Your task to perform on an android device: Go to Reddit.com Image 0: 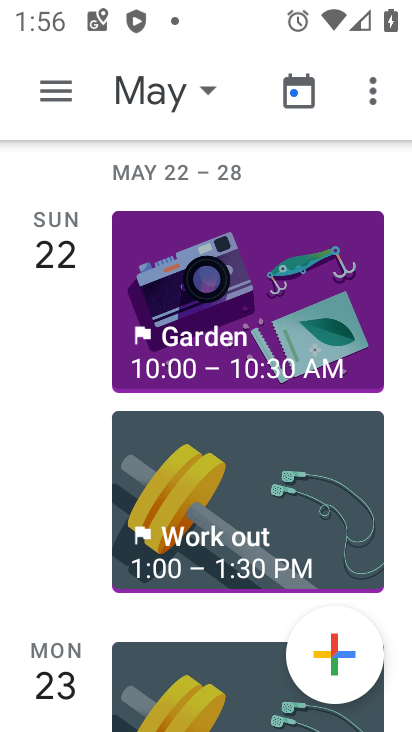
Step 0: press home button
Your task to perform on an android device: Go to Reddit.com Image 1: 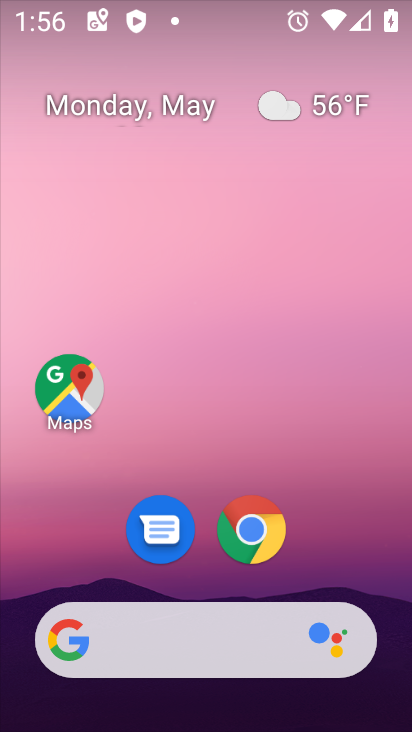
Step 1: click (247, 526)
Your task to perform on an android device: Go to Reddit.com Image 2: 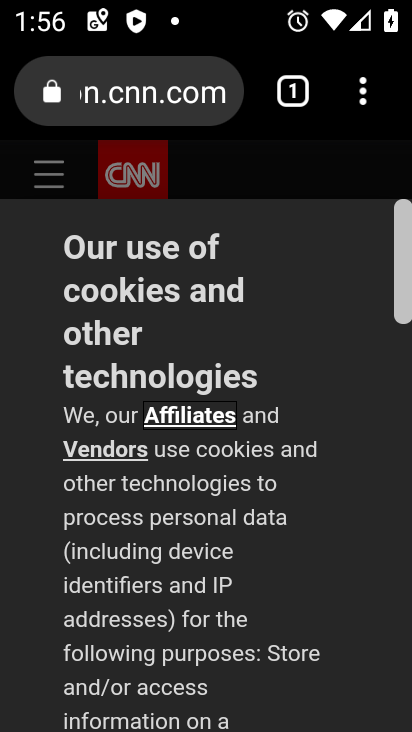
Step 2: click (118, 84)
Your task to perform on an android device: Go to Reddit.com Image 3: 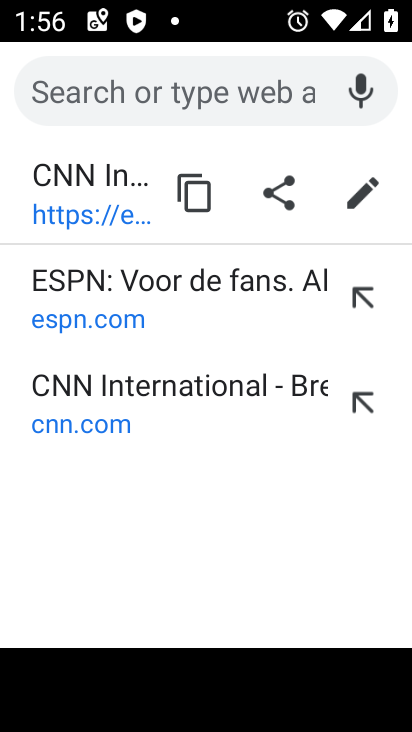
Step 3: type "Reddit.com"
Your task to perform on an android device: Go to Reddit.com Image 4: 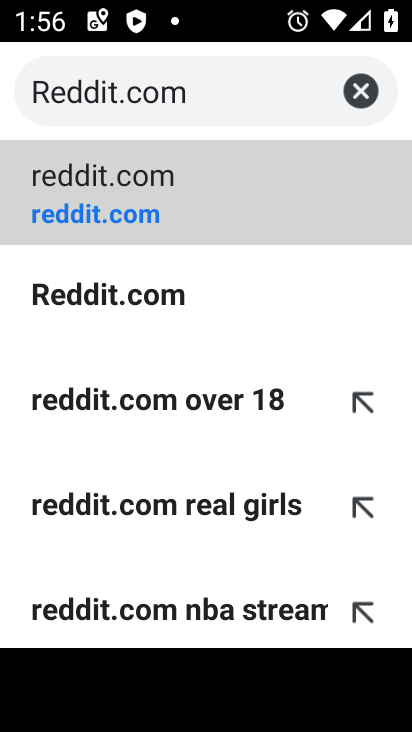
Step 4: click (187, 209)
Your task to perform on an android device: Go to Reddit.com Image 5: 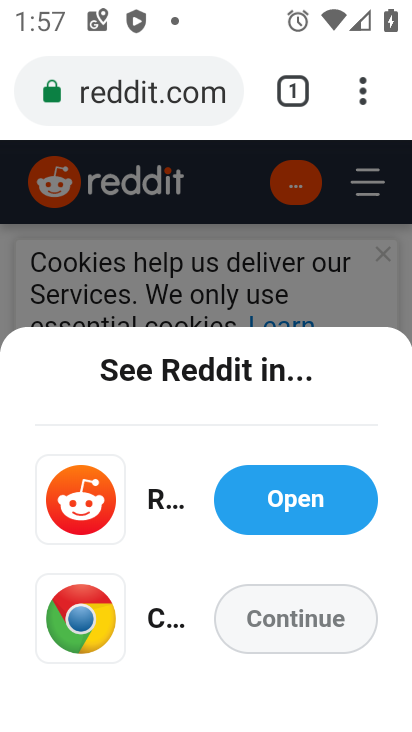
Step 5: task complete